Your task to perform on an android device: change your default location settings in chrome Image 0: 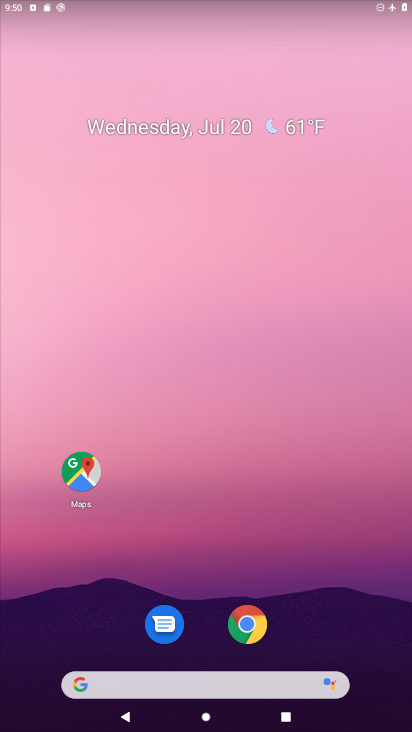
Step 0: drag from (204, 590) to (196, 252)
Your task to perform on an android device: change your default location settings in chrome Image 1: 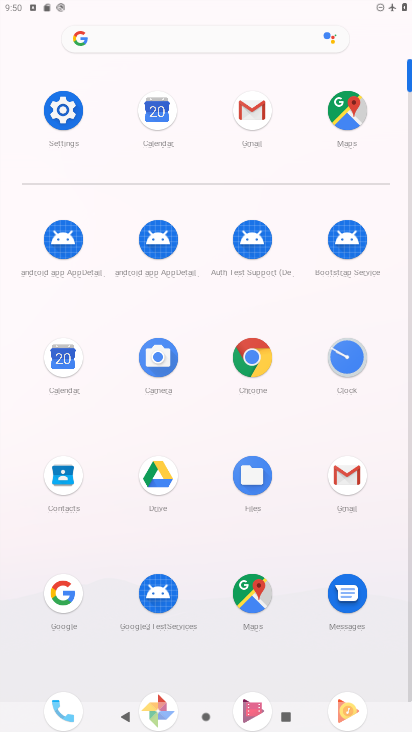
Step 1: click (243, 366)
Your task to perform on an android device: change your default location settings in chrome Image 2: 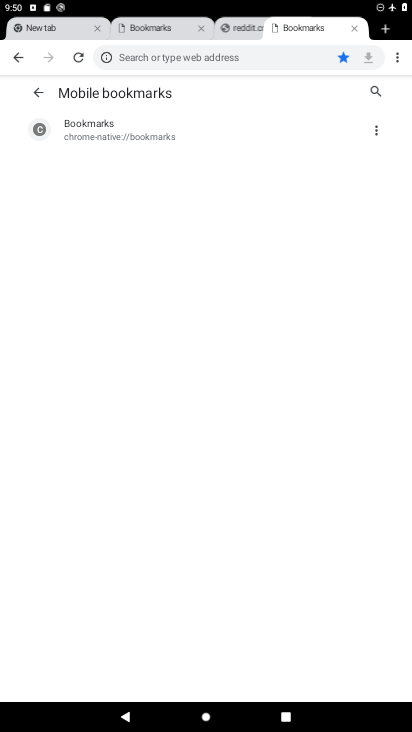
Step 2: click (395, 58)
Your task to perform on an android device: change your default location settings in chrome Image 3: 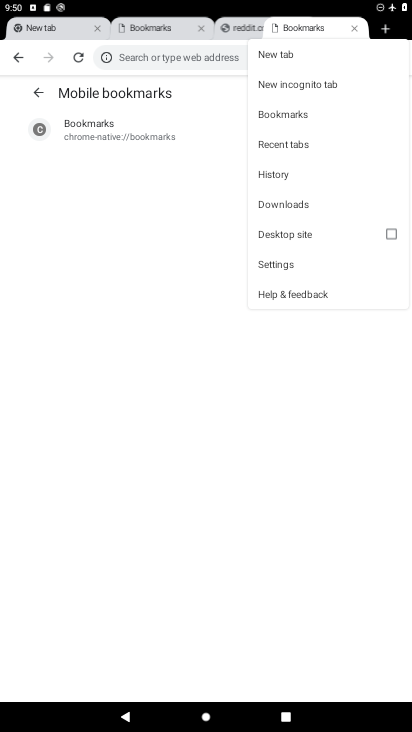
Step 3: click (296, 265)
Your task to perform on an android device: change your default location settings in chrome Image 4: 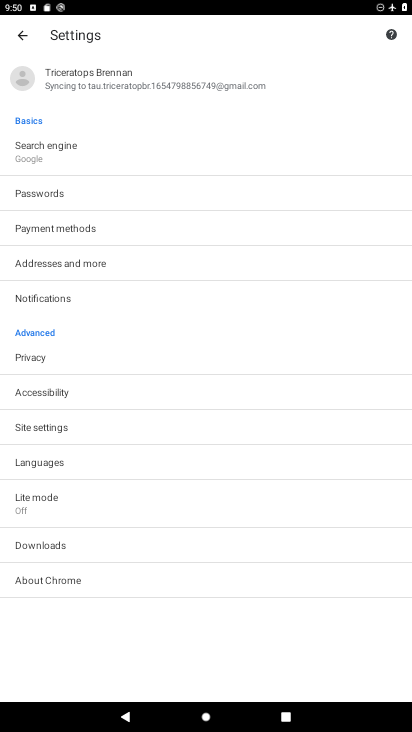
Step 4: click (12, 426)
Your task to perform on an android device: change your default location settings in chrome Image 5: 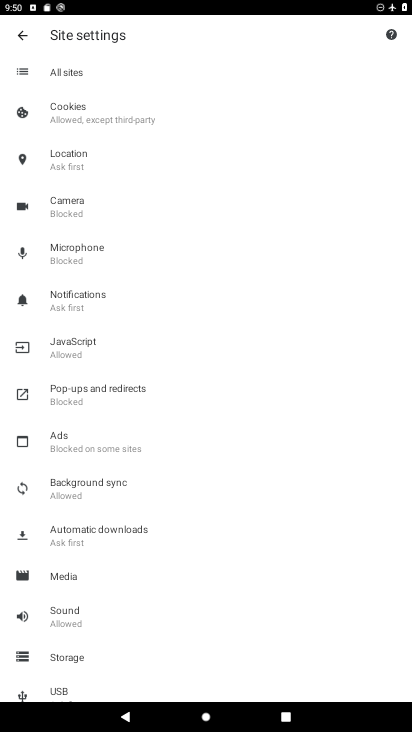
Step 5: click (65, 170)
Your task to perform on an android device: change your default location settings in chrome Image 6: 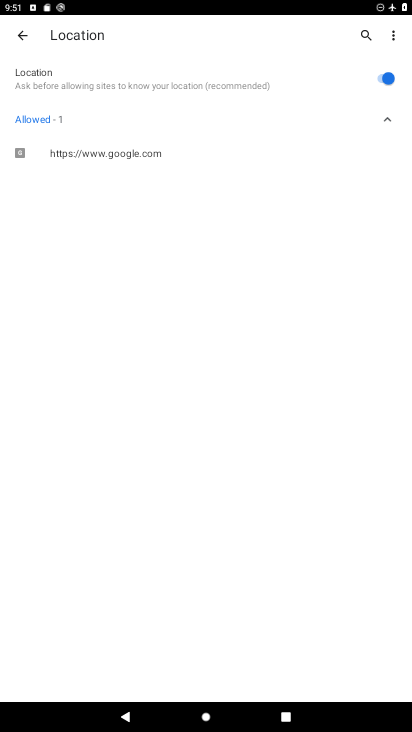
Step 6: task complete